Your task to perform on an android device: Go to calendar. Show me events next week Image 0: 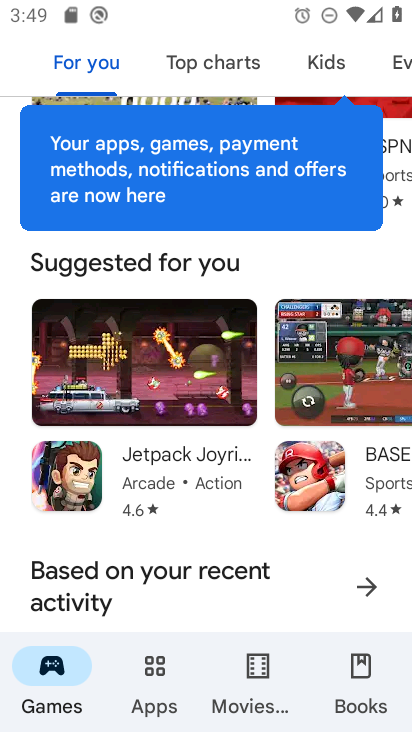
Step 0: press home button
Your task to perform on an android device: Go to calendar. Show me events next week Image 1: 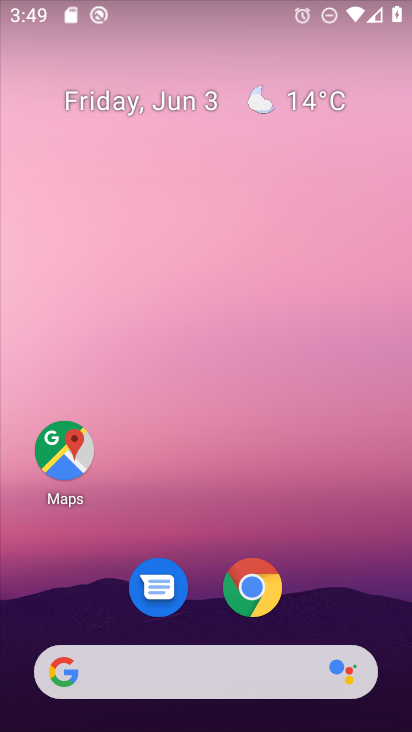
Step 1: drag from (206, 723) to (198, 105)
Your task to perform on an android device: Go to calendar. Show me events next week Image 2: 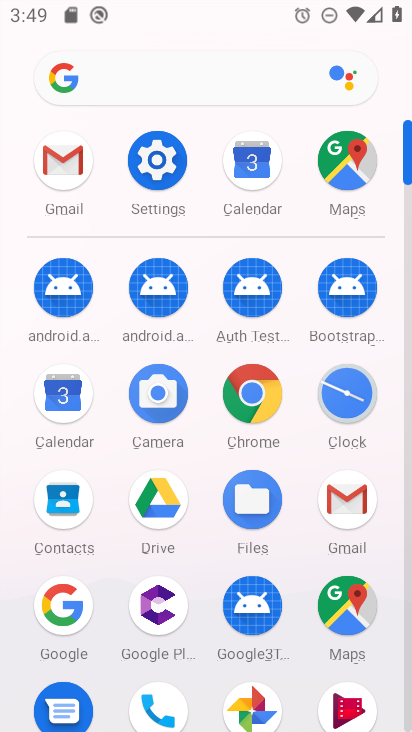
Step 2: click (64, 401)
Your task to perform on an android device: Go to calendar. Show me events next week Image 3: 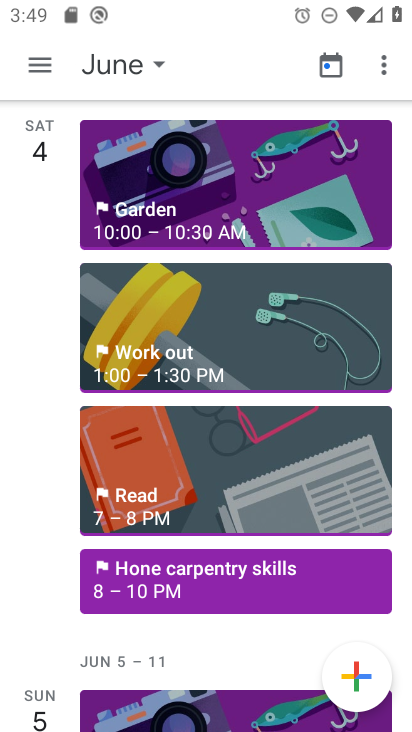
Step 3: click (147, 61)
Your task to perform on an android device: Go to calendar. Show me events next week Image 4: 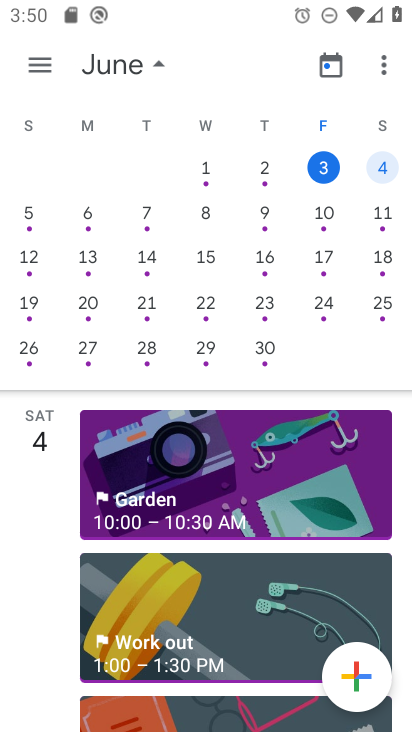
Step 4: click (87, 213)
Your task to perform on an android device: Go to calendar. Show me events next week Image 5: 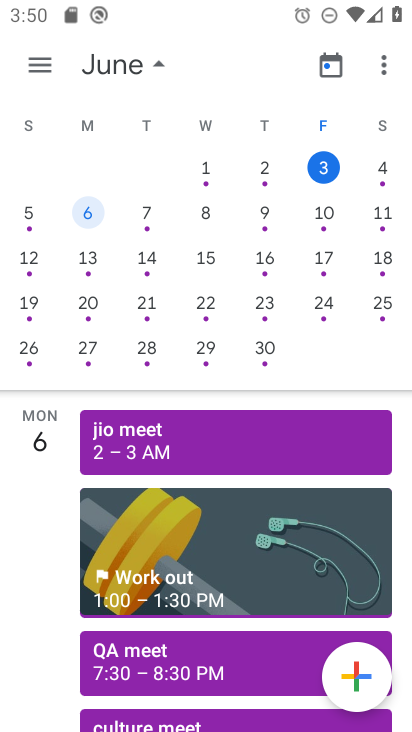
Step 5: click (87, 221)
Your task to perform on an android device: Go to calendar. Show me events next week Image 6: 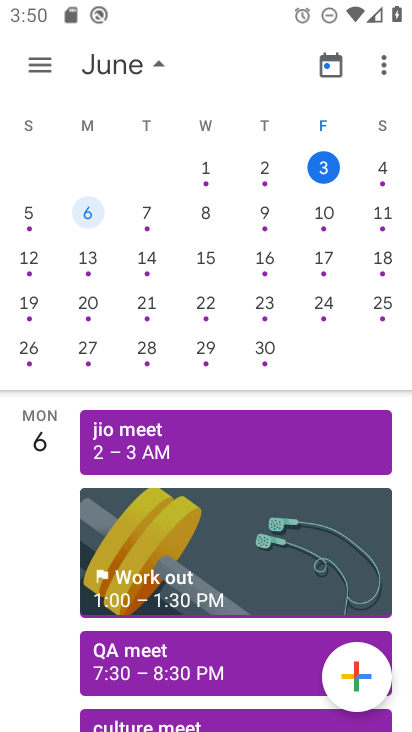
Step 6: click (39, 63)
Your task to perform on an android device: Go to calendar. Show me events next week Image 7: 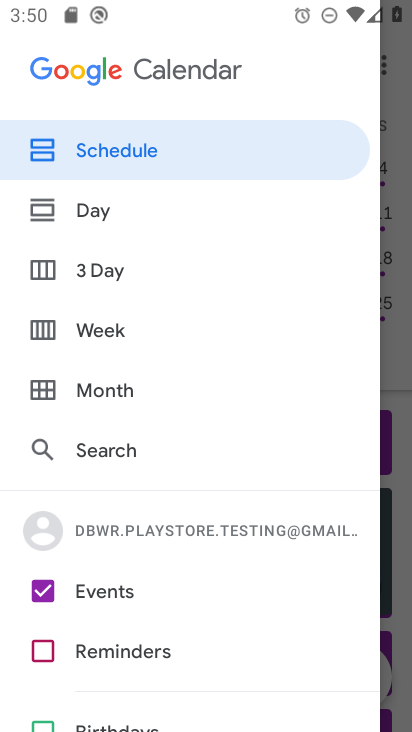
Step 7: click (109, 325)
Your task to perform on an android device: Go to calendar. Show me events next week Image 8: 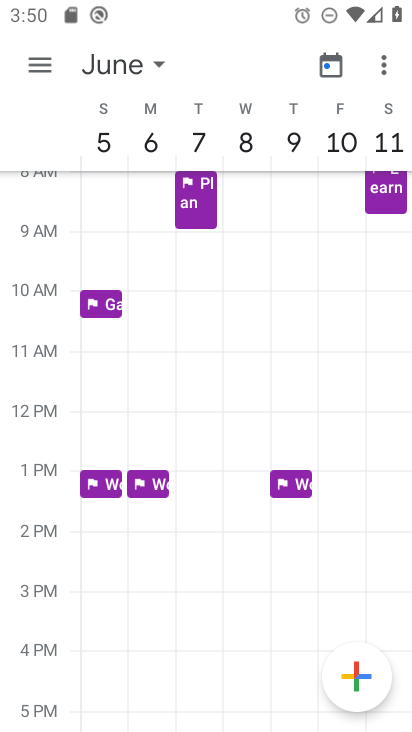
Step 8: task complete